Your task to perform on an android device: open a bookmark in the chrome app Image 0: 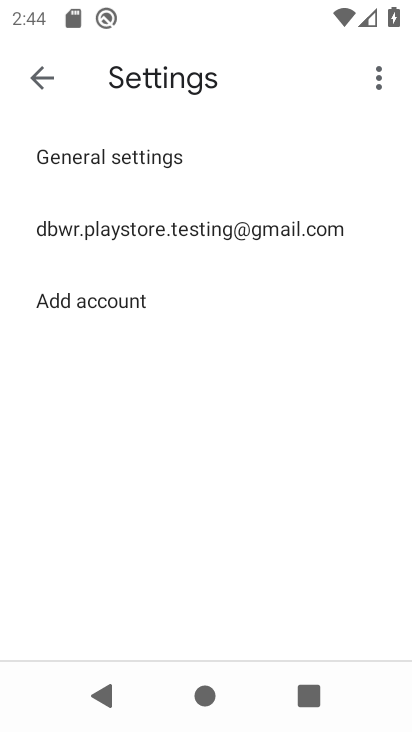
Step 0: press home button
Your task to perform on an android device: open a bookmark in the chrome app Image 1: 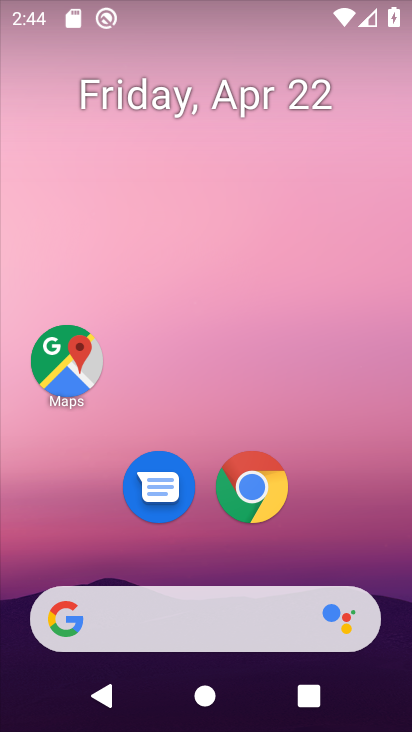
Step 1: click (271, 518)
Your task to perform on an android device: open a bookmark in the chrome app Image 2: 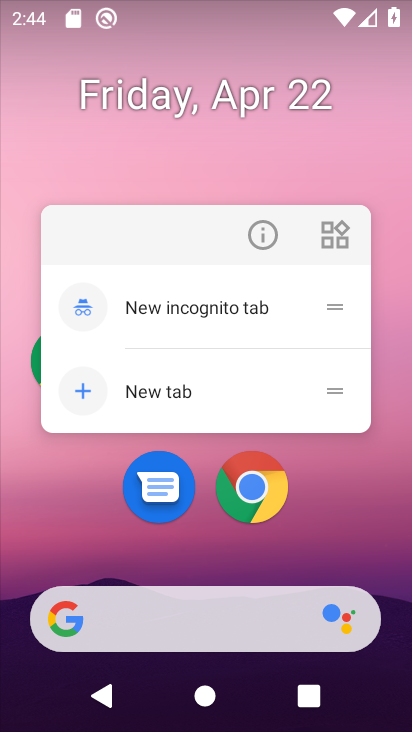
Step 2: click (250, 233)
Your task to perform on an android device: open a bookmark in the chrome app Image 3: 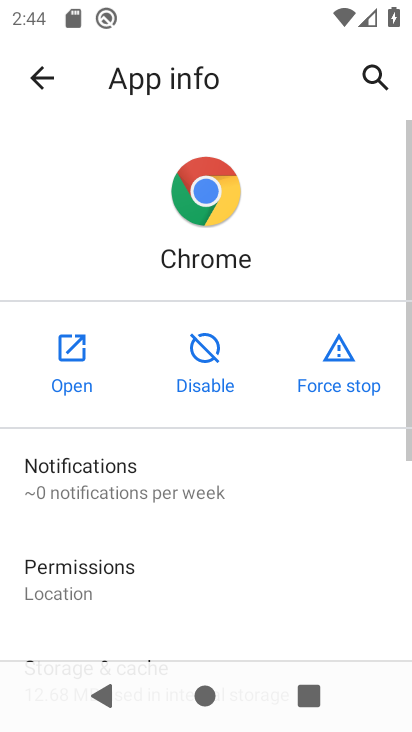
Step 3: click (86, 366)
Your task to perform on an android device: open a bookmark in the chrome app Image 4: 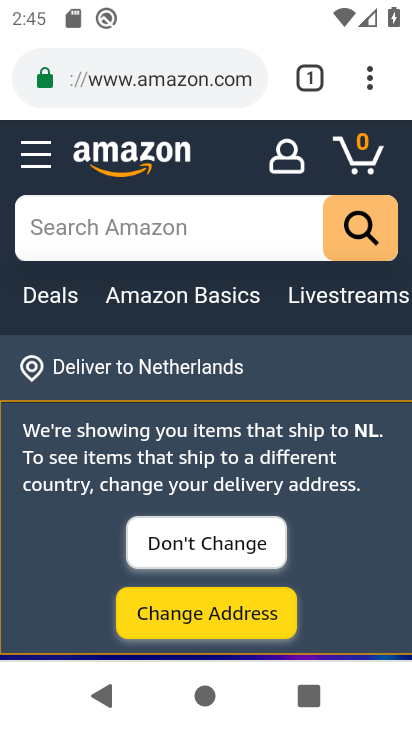
Step 4: click (370, 81)
Your task to perform on an android device: open a bookmark in the chrome app Image 5: 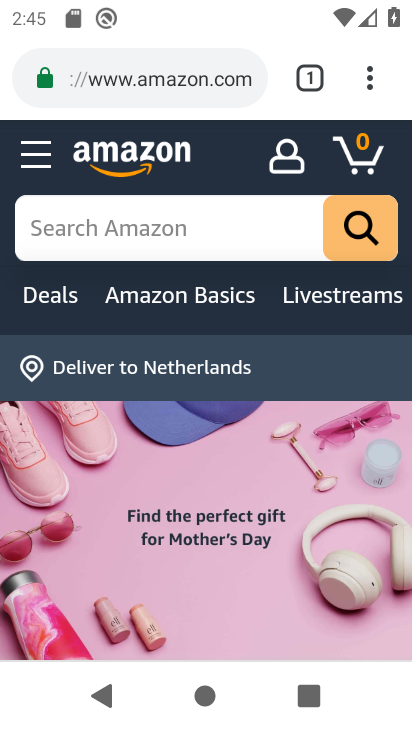
Step 5: click (375, 84)
Your task to perform on an android device: open a bookmark in the chrome app Image 6: 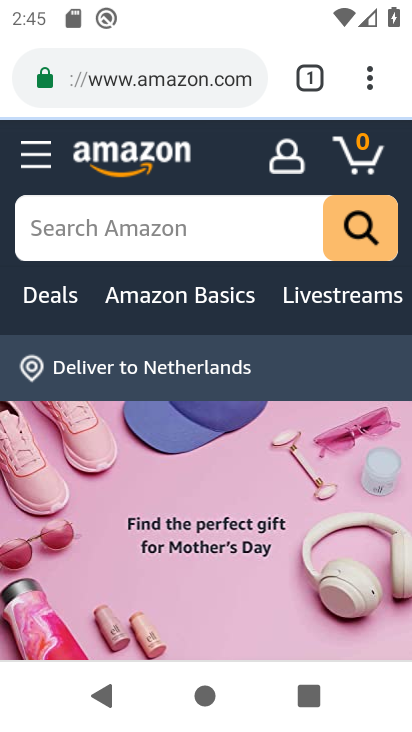
Step 6: click (369, 79)
Your task to perform on an android device: open a bookmark in the chrome app Image 7: 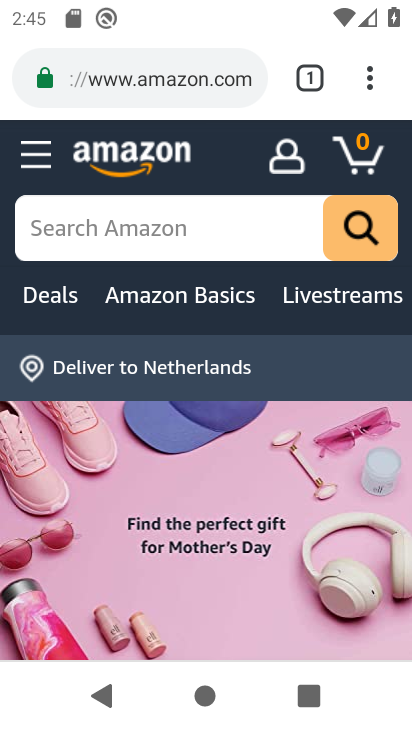
Step 7: click (365, 82)
Your task to perform on an android device: open a bookmark in the chrome app Image 8: 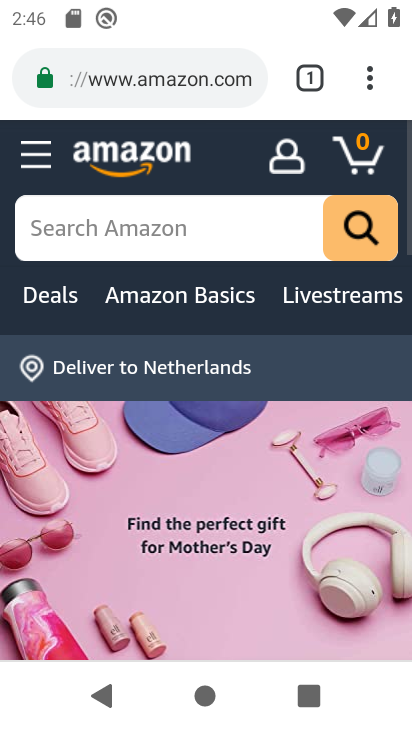
Step 8: click (378, 78)
Your task to perform on an android device: open a bookmark in the chrome app Image 9: 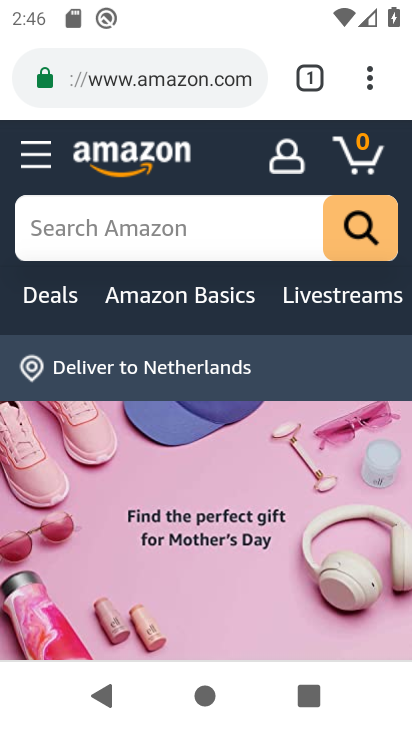
Step 9: click (376, 68)
Your task to perform on an android device: open a bookmark in the chrome app Image 10: 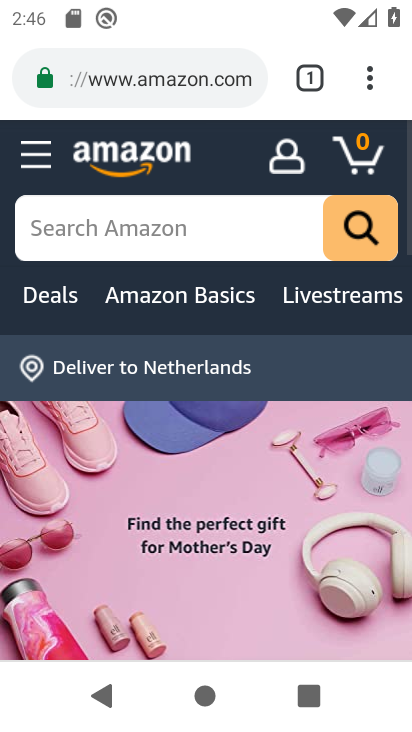
Step 10: click (369, 80)
Your task to perform on an android device: open a bookmark in the chrome app Image 11: 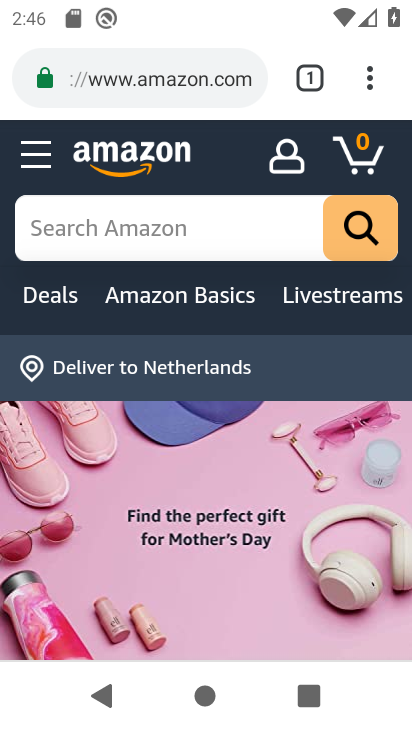
Step 11: click (366, 81)
Your task to perform on an android device: open a bookmark in the chrome app Image 12: 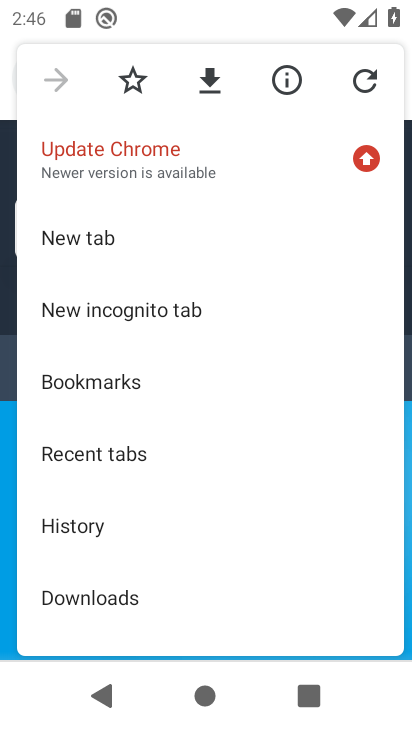
Step 12: click (155, 385)
Your task to perform on an android device: open a bookmark in the chrome app Image 13: 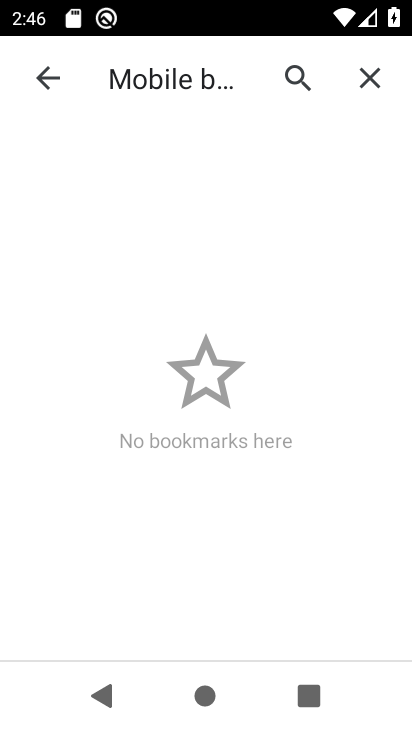
Step 13: task complete